Your task to perform on an android device: Set the phone to "Do not disturb". Image 0: 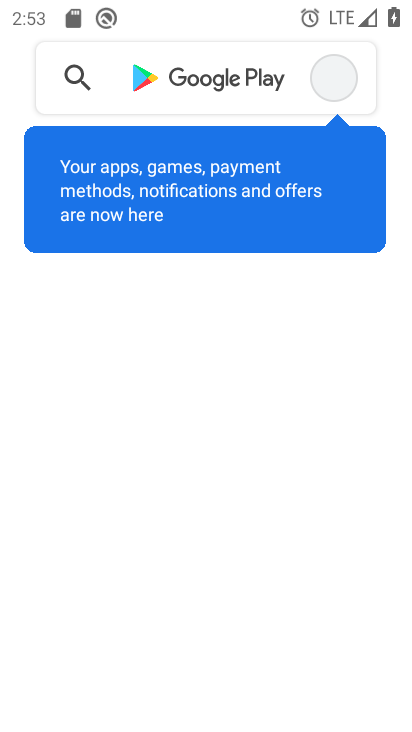
Step 0: press home button
Your task to perform on an android device: Set the phone to "Do not disturb". Image 1: 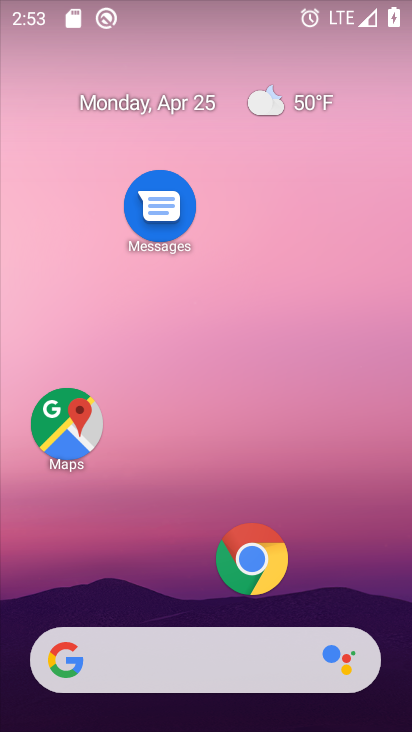
Step 1: drag from (156, 586) to (279, 33)
Your task to perform on an android device: Set the phone to "Do not disturb". Image 2: 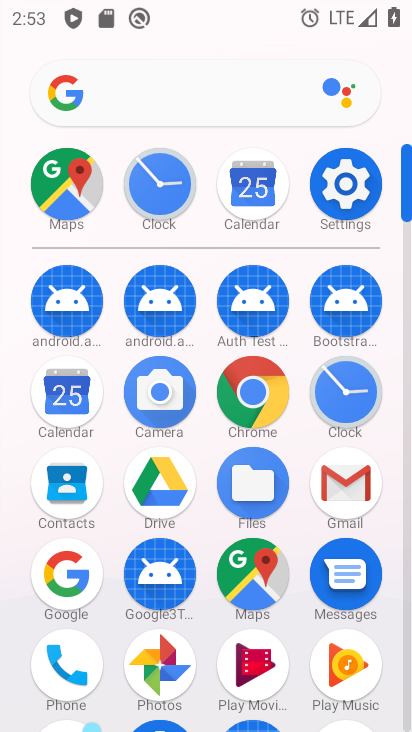
Step 2: click (348, 194)
Your task to perform on an android device: Set the phone to "Do not disturb". Image 3: 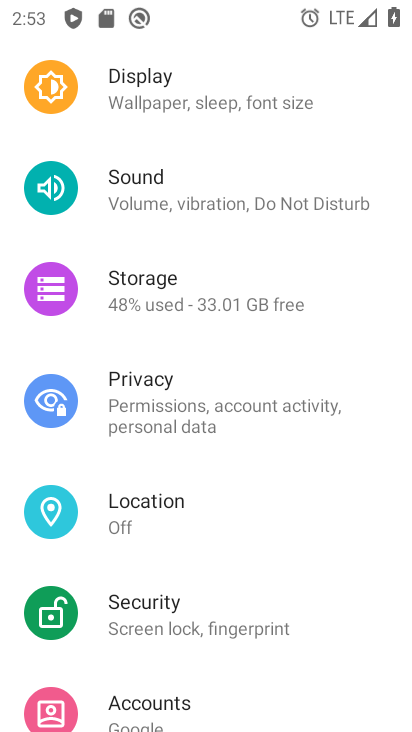
Step 3: click (231, 218)
Your task to perform on an android device: Set the phone to "Do not disturb". Image 4: 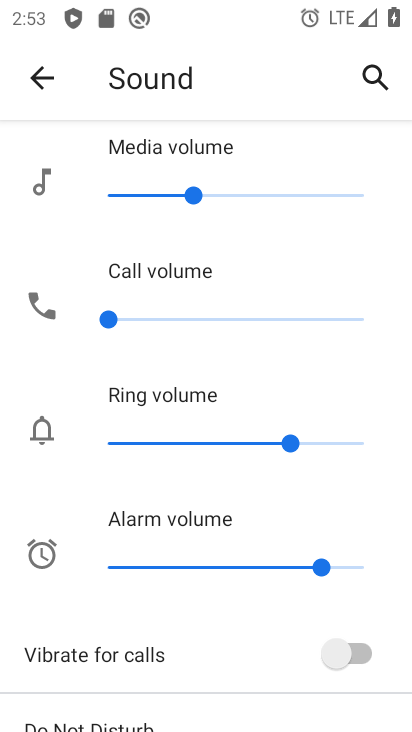
Step 4: drag from (142, 591) to (216, 139)
Your task to perform on an android device: Set the phone to "Do not disturb". Image 5: 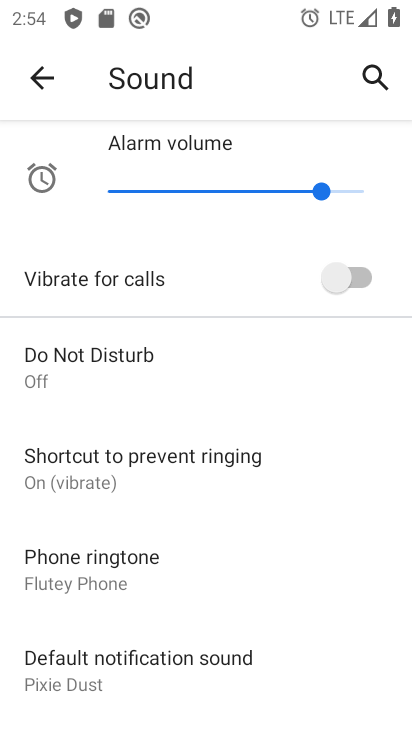
Step 5: click (114, 367)
Your task to perform on an android device: Set the phone to "Do not disturb". Image 6: 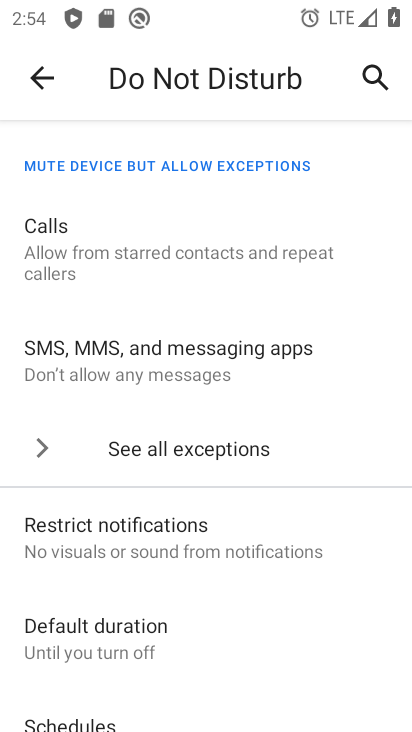
Step 6: drag from (165, 527) to (202, 162)
Your task to perform on an android device: Set the phone to "Do not disturb". Image 7: 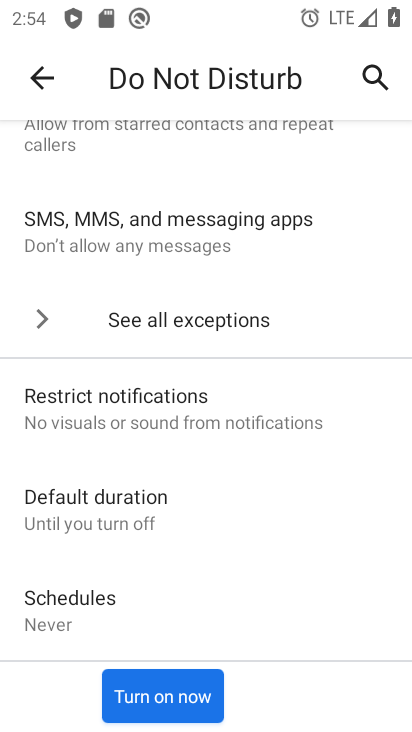
Step 7: click (175, 690)
Your task to perform on an android device: Set the phone to "Do not disturb". Image 8: 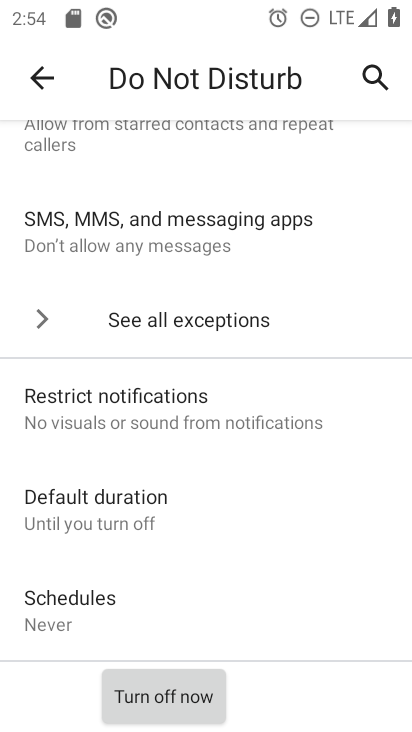
Step 8: task complete